Your task to perform on an android device: Turn on the flashlight Image 0: 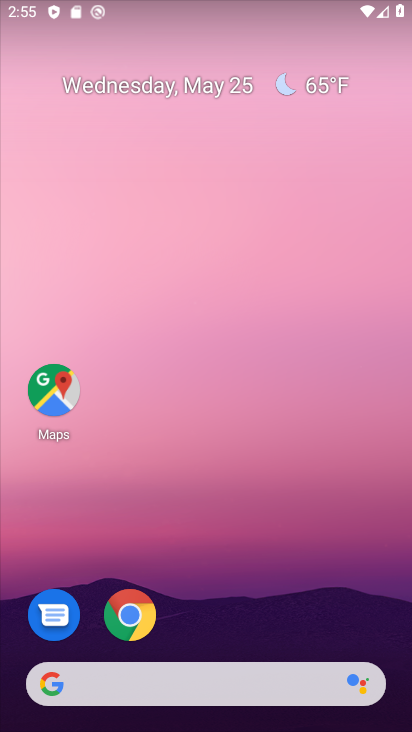
Step 0: drag from (373, 31) to (393, 629)
Your task to perform on an android device: Turn on the flashlight Image 1: 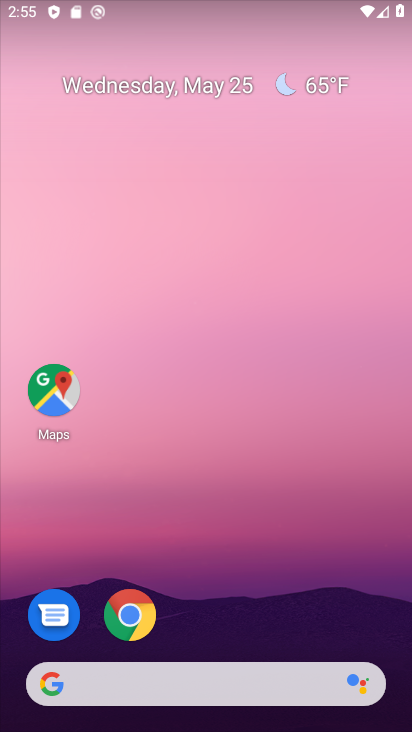
Step 1: drag from (370, 117) to (327, 606)
Your task to perform on an android device: Turn on the flashlight Image 2: 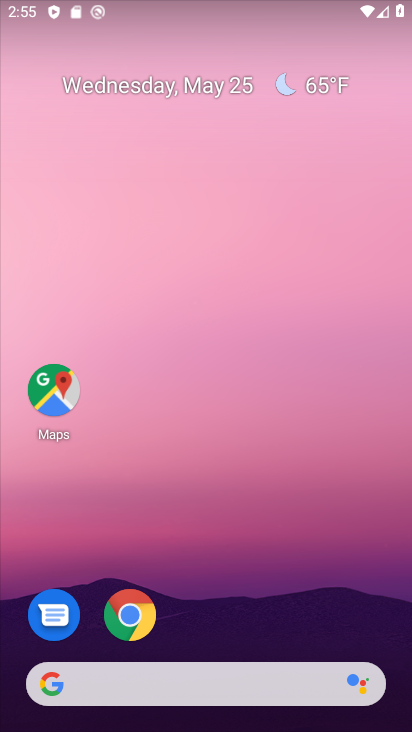
Step 2: drag from (363, 11) to (364, 622)
Your task to perform on an android device: Turn on the flashlight Image 3: 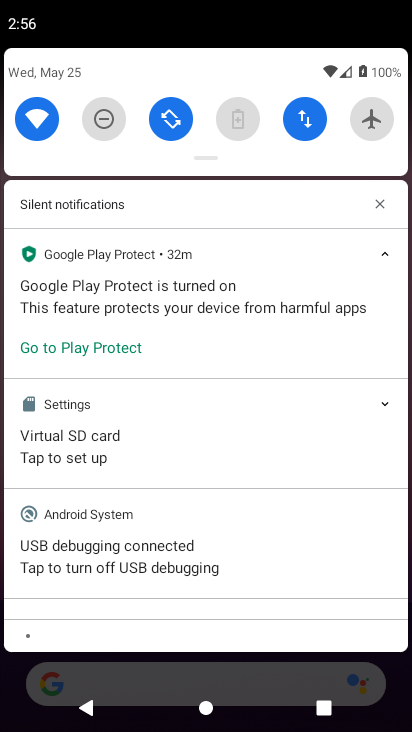
Step 3: drag from (231, 147) to (258, 673)
Your task to perform on an android device: Turn on the flashlight Image 4: 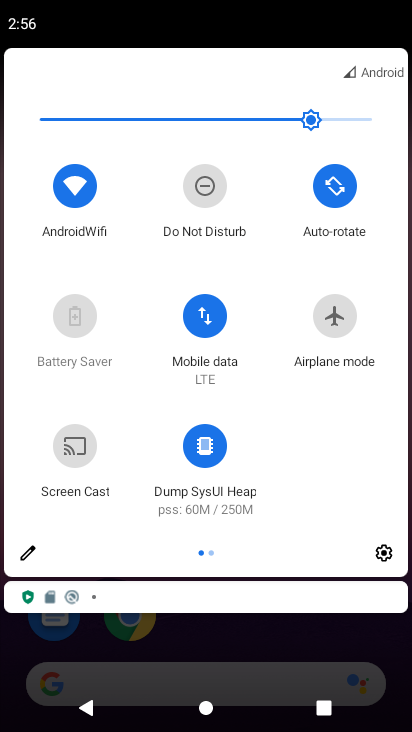
Step 4: click (26, 554)
Your task to perform on an android device: Turn on the flashlight Image 5: 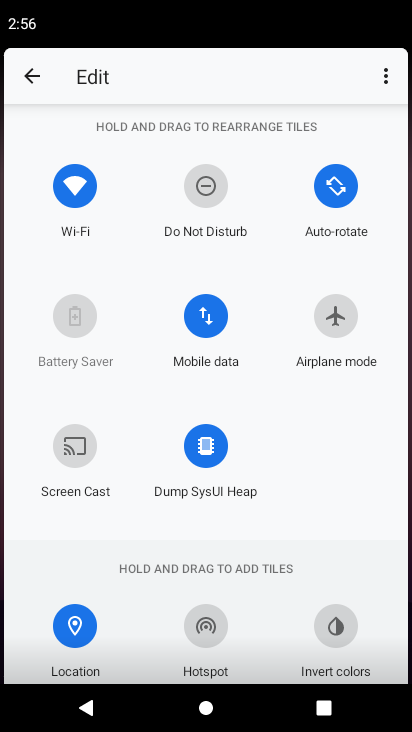
Step 5: task complete